Your task to perform on an android device: Search for Mexican restaurants on Maps Image 0: 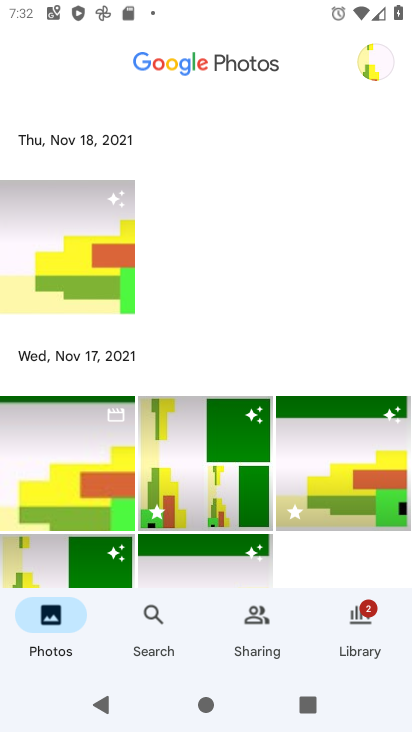
Step 0: press home button
Your task to perform on an android device: Search for Mexican restaurants on Maps Image 1: 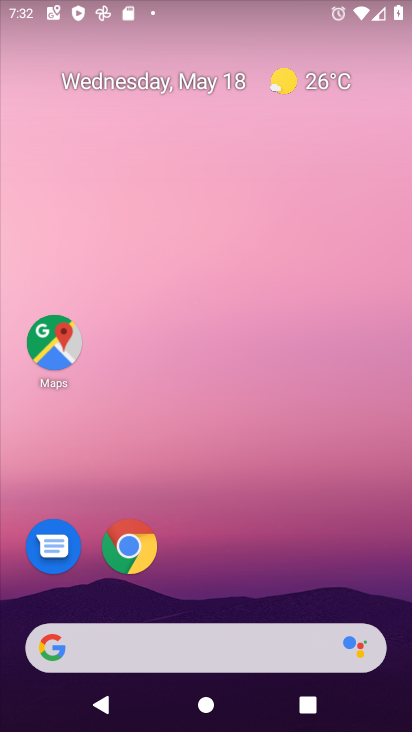
Step 1: drag from (405, 648) to (333, 93)
Your task to perform on an android device: Search for Mexican restaurants on Maps Image 2: 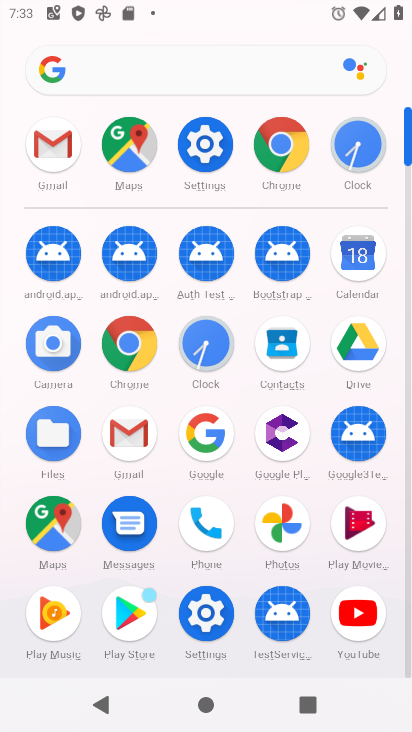
Step 2: click (52, 553)
Your task to perform on an android device: Search for Mexican restaurants on Maps Image 3: 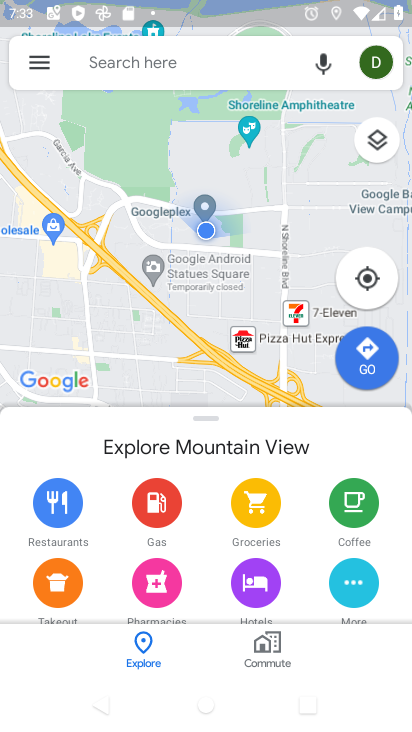
Step 3: click (164, 62)
Your task to perform on an android device: Search for Mexican restaurants on Maps Image 4: 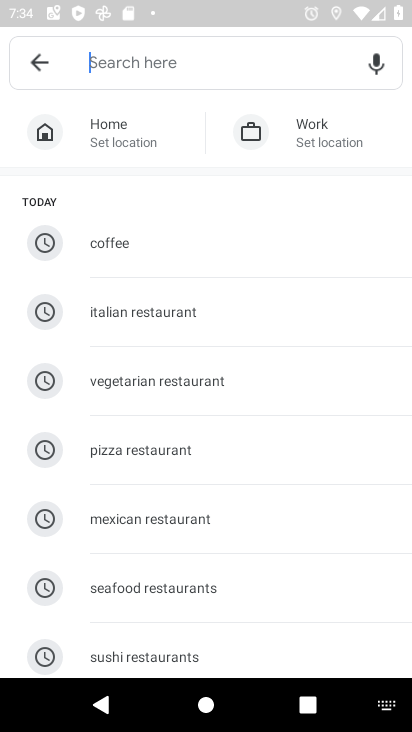
Step 4: click (146, 524)
Your task to perform on an android device: Search for Mexican restaurants on Maps Image 5: 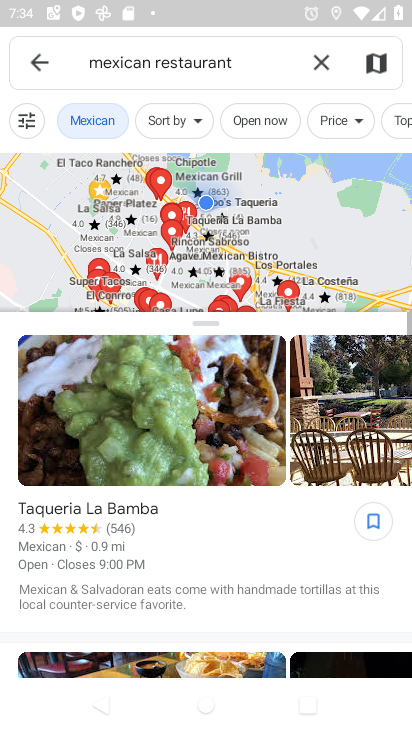
Step 5: task complete